Your task to perform on an android device: Open Youtube and go to "Your channel" Image 0: 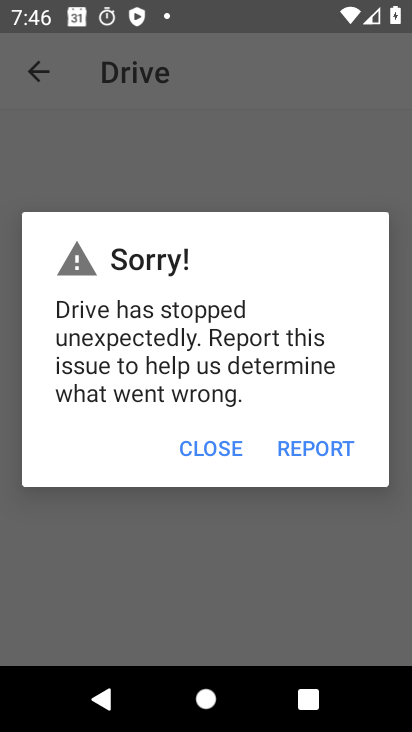
Step 0: press home button
Your task to perform on an android device: Open Youtube and go to "Your channel" Image 1: 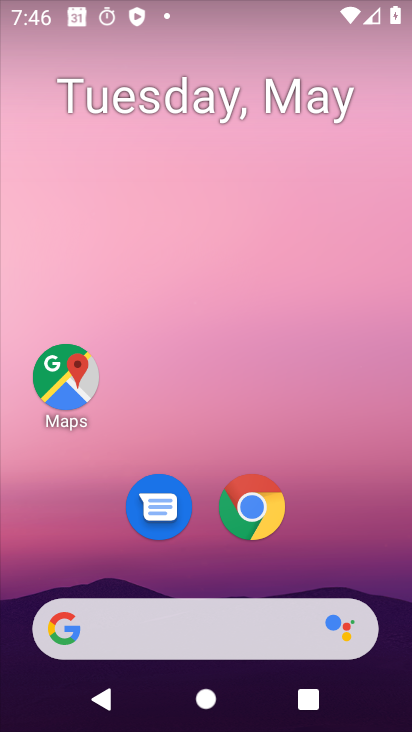
Step 1: drag from (206, 559) to (317, 73)
Your task to perform on an android device: Open Youtube and go to "Your channel" Image 2: 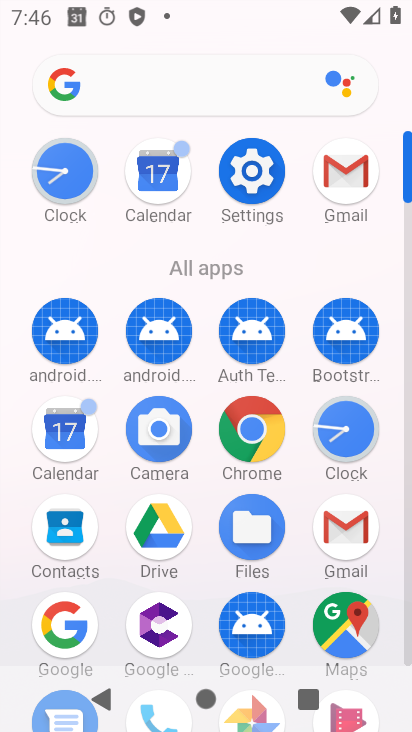
Step 2: drag from (202, 587) to (226, 347)
Your task to perform on an android device: Open Youtube and go to "Your channel" Image 3: 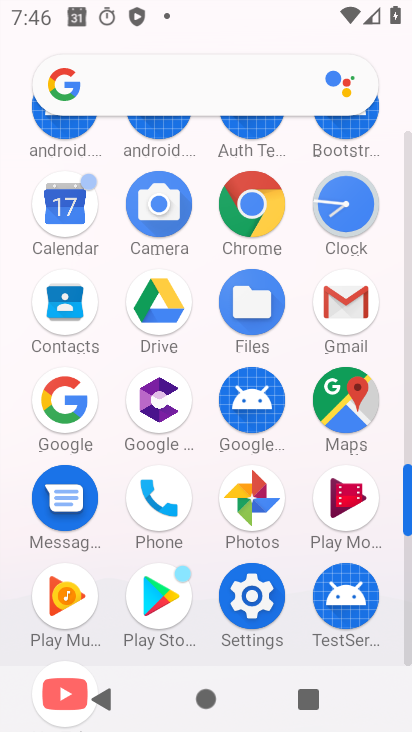
Step 3: drag from (196, 637) to (243, 466)
Your task to perform on an android device: Open Youtube and go to "Your channel" Image 4: 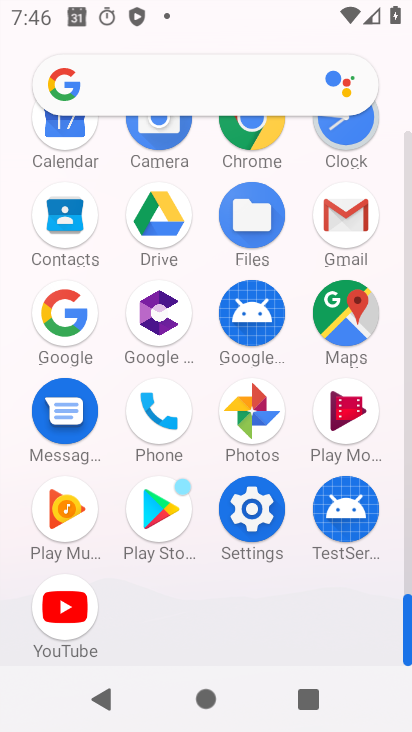
Step 4: click (61, 618)
Your task to perform on an android device: Open Youtube and go to "Your channel" Image 5: 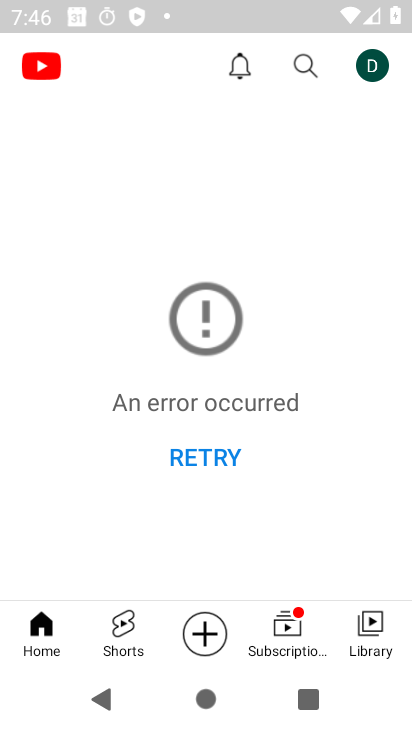
Step 5: click (358, 73)
Your task to perform on an android device: Open Youtube and go to "Your channel" Image 6: 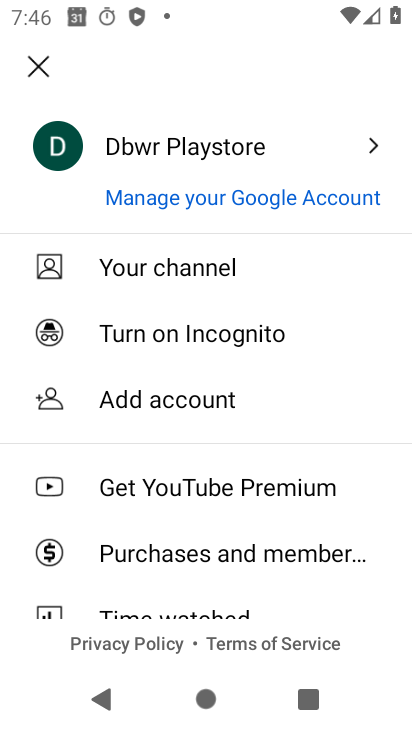
Step 6: click (158, 260)
Your task to perform on an android device: Open Youtube and go to "Your channel" Image 7: 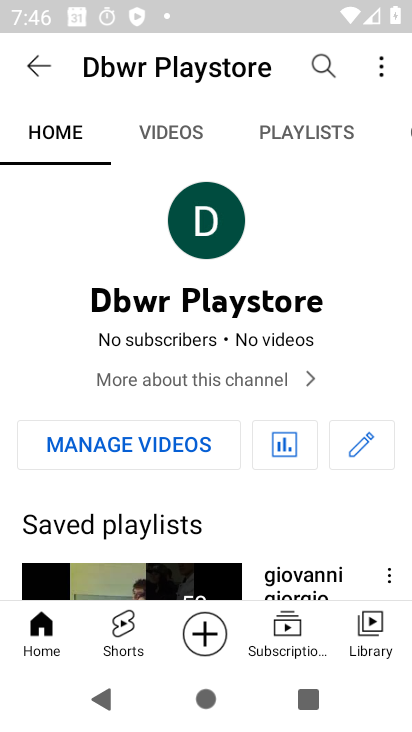
Step 7: task complete